Your task to perform on an android device: install app "Microsoft Authenticator" Image 0: 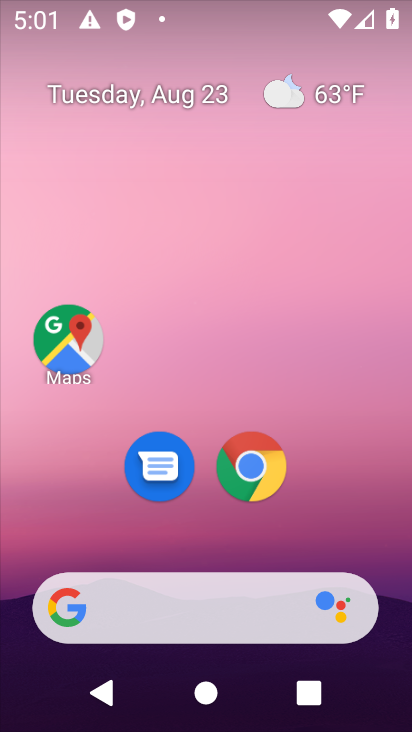
Step 0: drag from (232, 586) to (167, 2)
Your task to perform on an android device: install app "Microsoft Authenticator" Image 1: 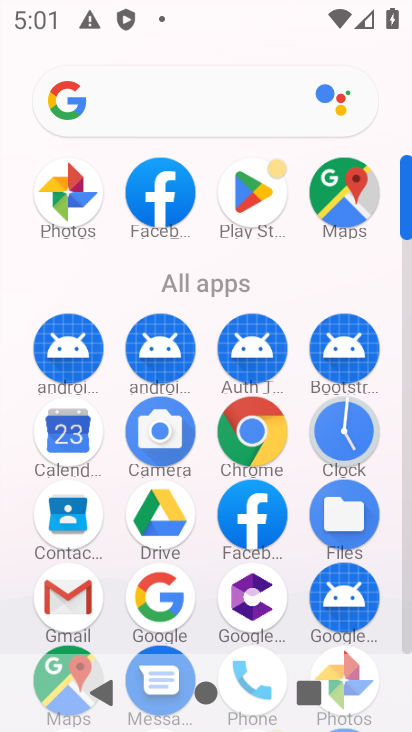
Step 1: click (250, 205)
Your task to perform on an android device: install app "Microsoft Authenticator" Image 2: 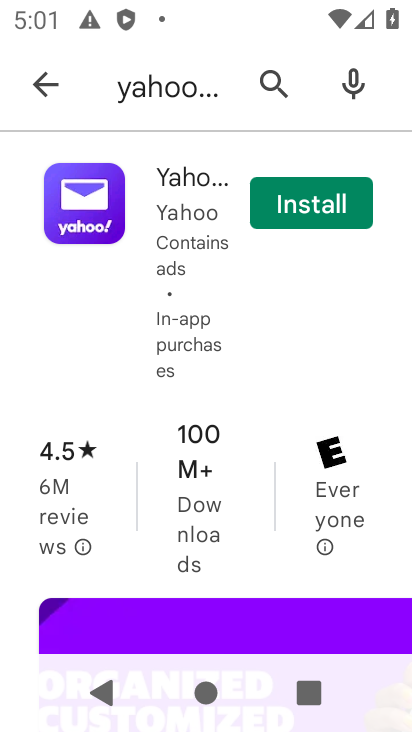
Step 2: click (261, 95)
Your task to perform on an android device: install app "Microsoft Authenticator" Image 3: 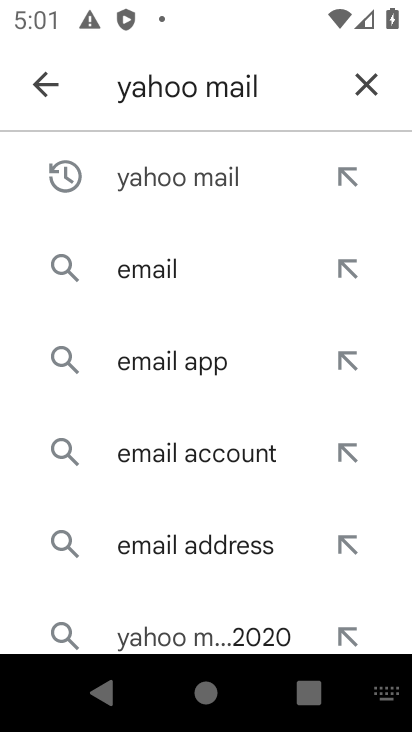
Step 3: click (373, 89)
Your task to perform on an android device: install app "Microsoft Authenticator" Image 4: 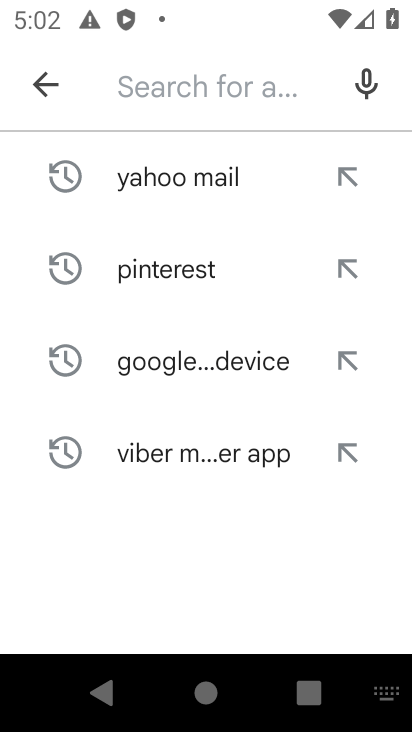
Step 4: type "Microsoft Authenticator"
Your task to perform on an android device: install app "Microsoft Authenticator" Image 5: 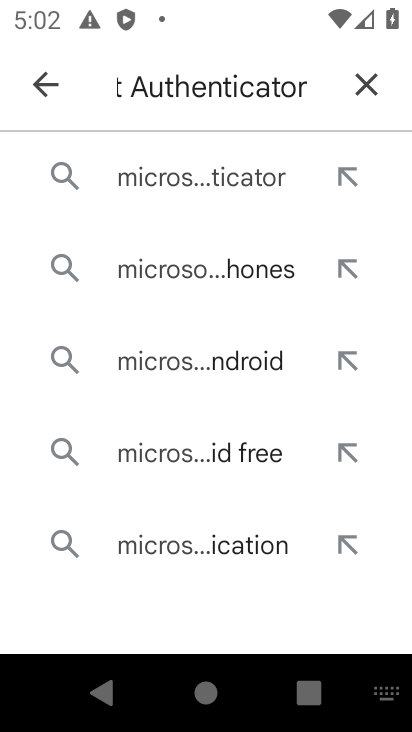
Step 5: click (159, 174)
Your task to perform on an android device: install app "Microsoft Authenticator" Image 6: 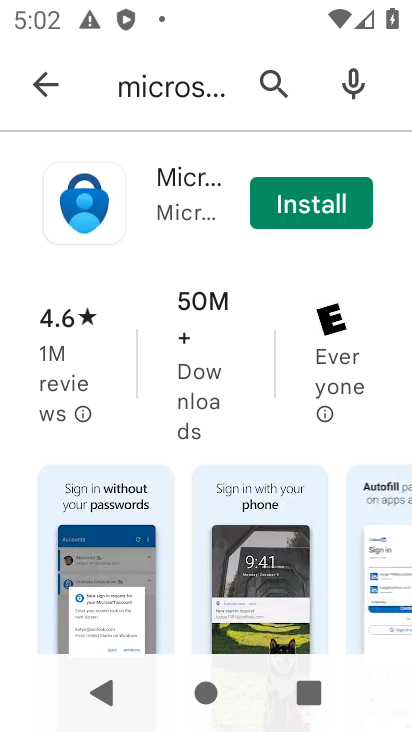
Step 6: click (291, 198)
Your task to perform on an android device: install app "Microsoft Authenticator" Image 7: 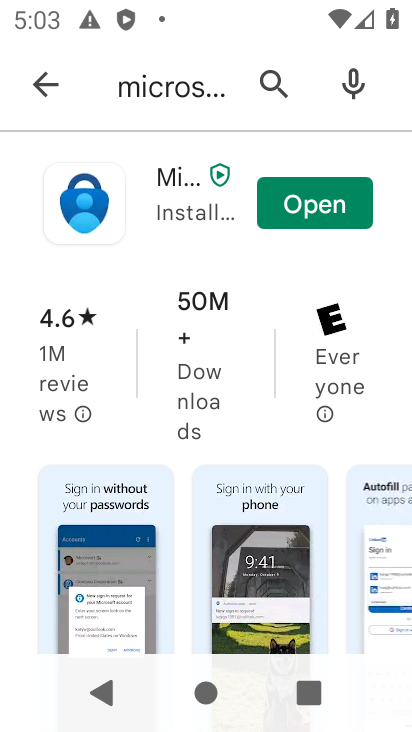
Step 7: task complete